Your task to perform on an android device: Toggle the flashlight Image 0: 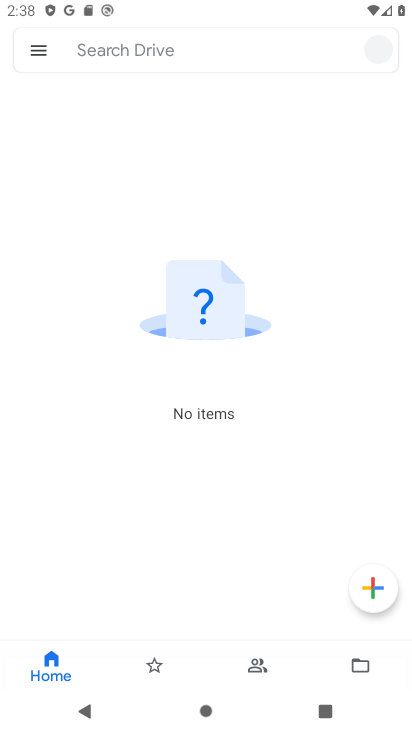
Step 0: press home button
Your task to perform on an android device: Toggle the flashlight Image 1: 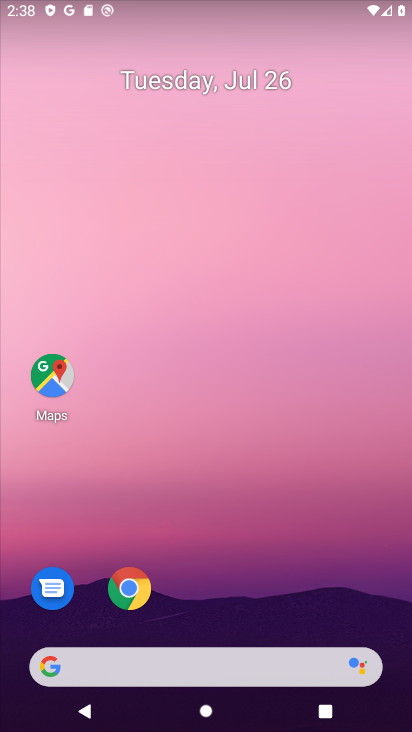
Step 1: drag from (239, 599) to (202, 165)
Your task to perform on an android device: Toggle the flashlight Image 2: 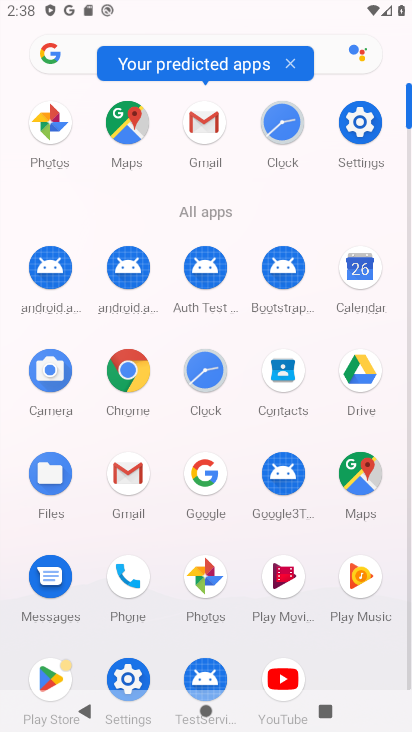
Step 2: drag from (257, 4) to (286, 605)
Your task to perform on an android device: Toggle the flashlight Image 3: 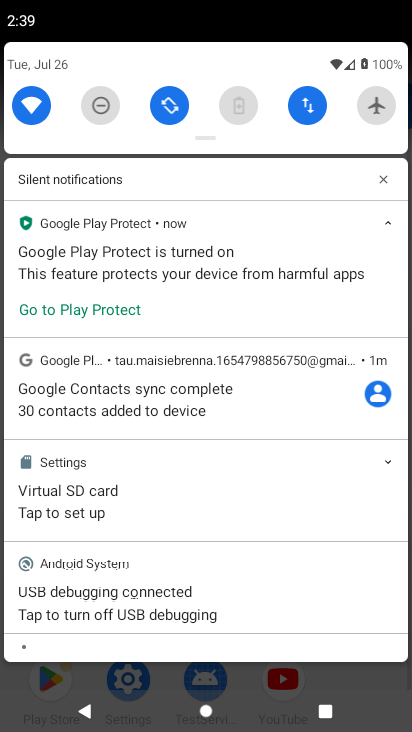
Step 3: drag from (207, 130) to (266, 485)
Your task to perform on an android device: Toggle the flashlight Image 4: 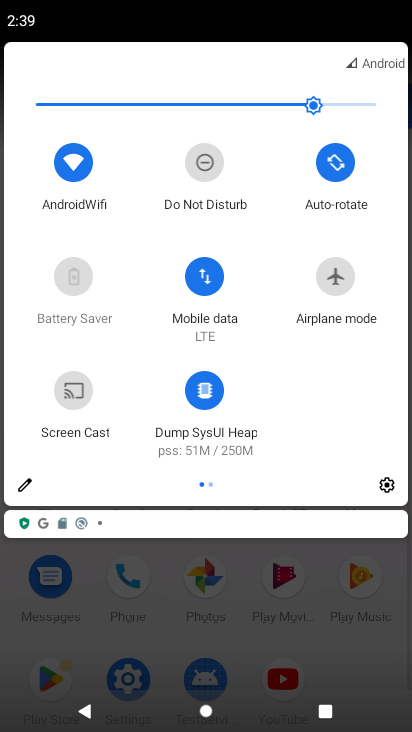
Step 4: click (22, 478)
Your task to perform on an android device: Toggle the flashlight Image 5: 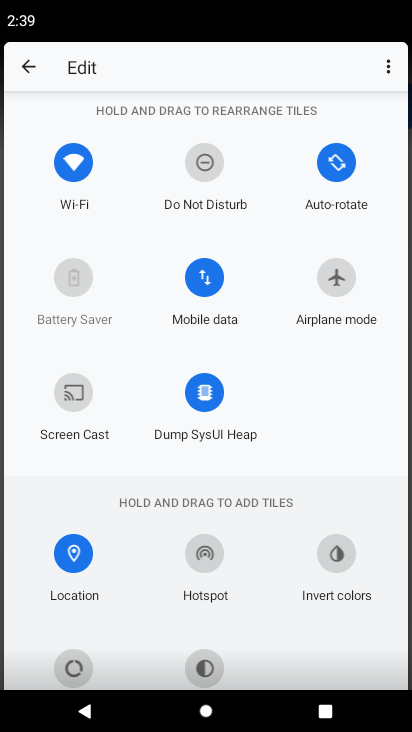
Step 5: task complete